Your task to perform on an android device: change the clock display to analog Image 0: 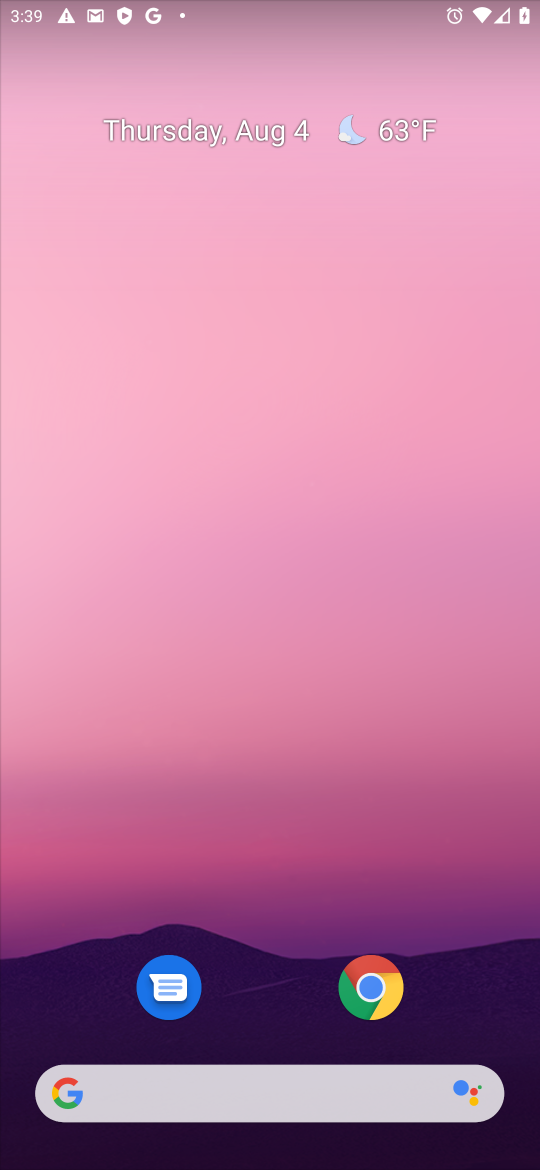
Step 0: click (174, 216)
Your task to perform on an android device: change the clock display to analog Image 1: 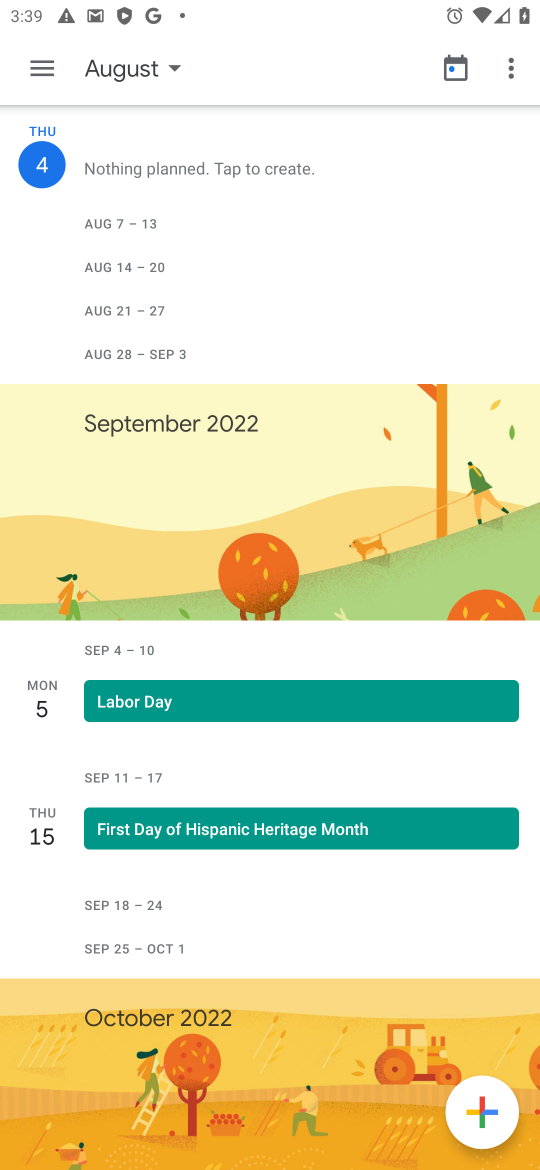
Step 1: press home button
Your task to perform on an android device: change the clock display to analog Image 2: 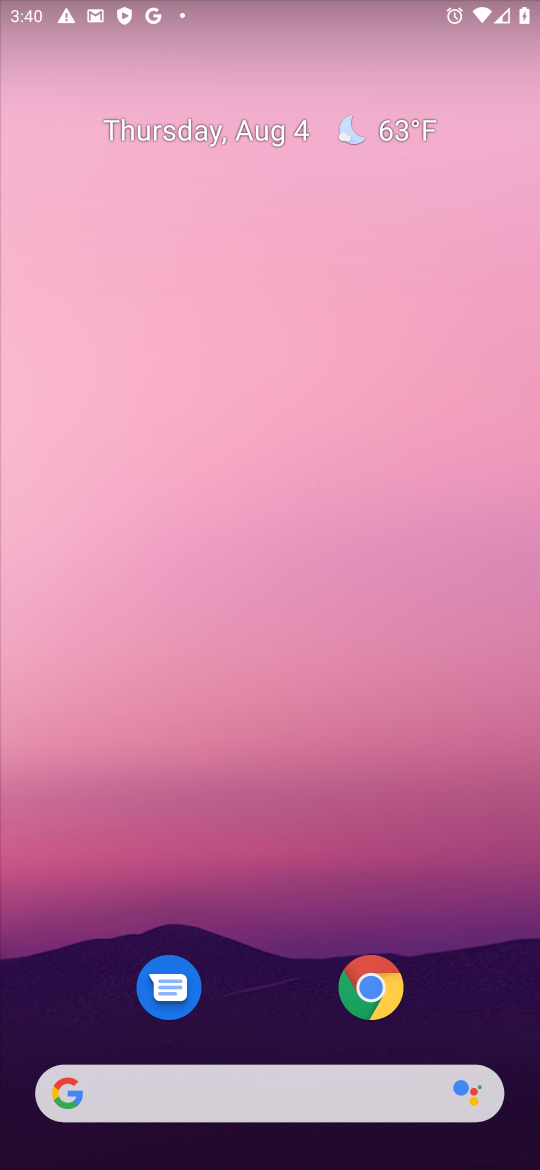
Step 2: drag from (214, 223) to (209, 17)
Your task to perform on an android device: change the clock display to analog Image 3: 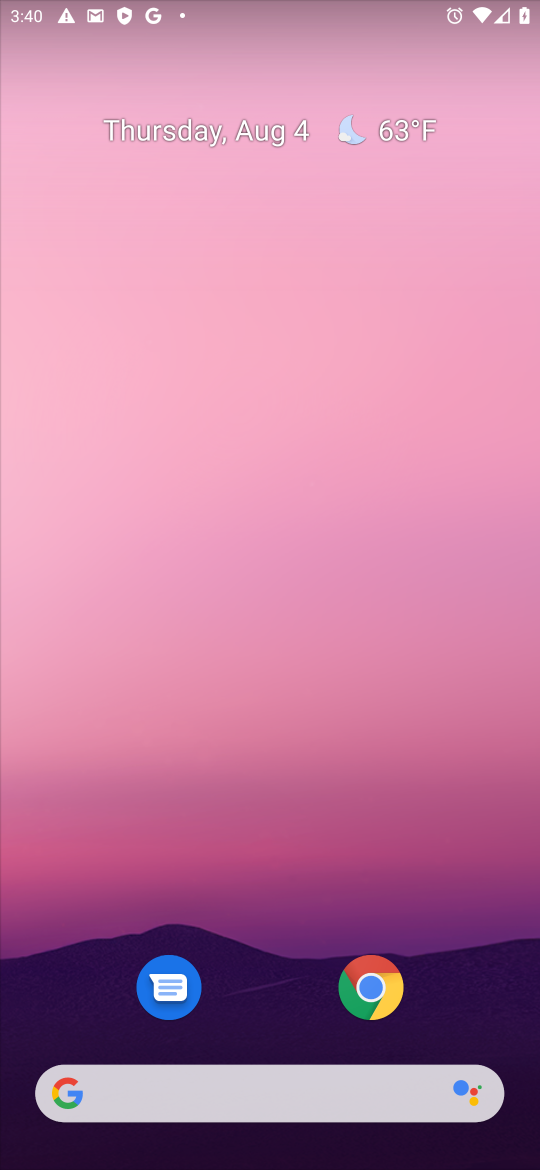
Step 3: drag from (255, 980) to (216, 220)
Your task to perform on an android device: change the clock display to analog Image 4: 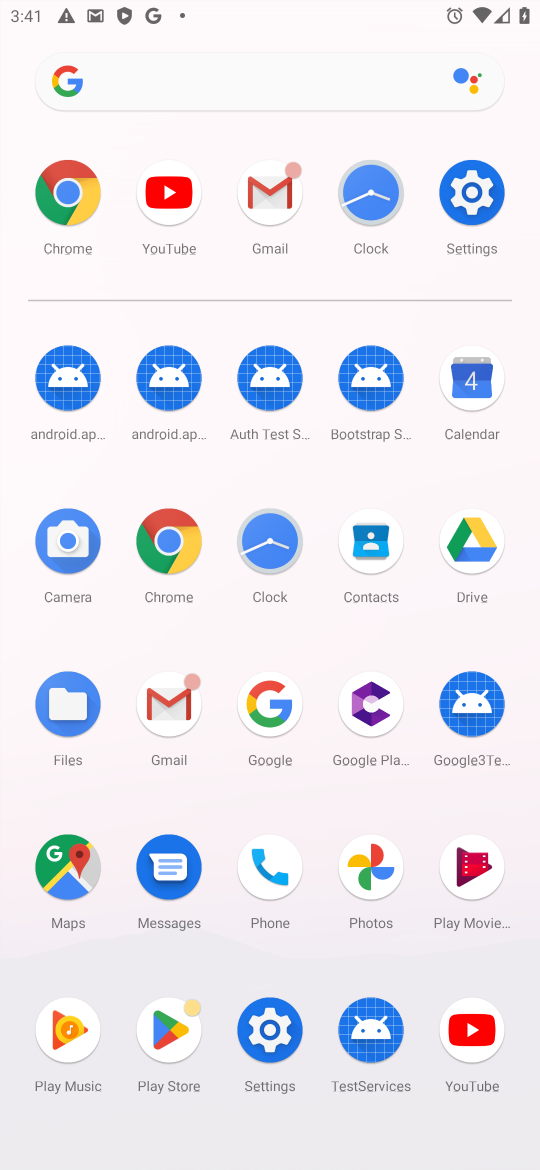
Step 4: click (346, 202)
Your task to perform on an android device: change the clock display to analog Image 5: 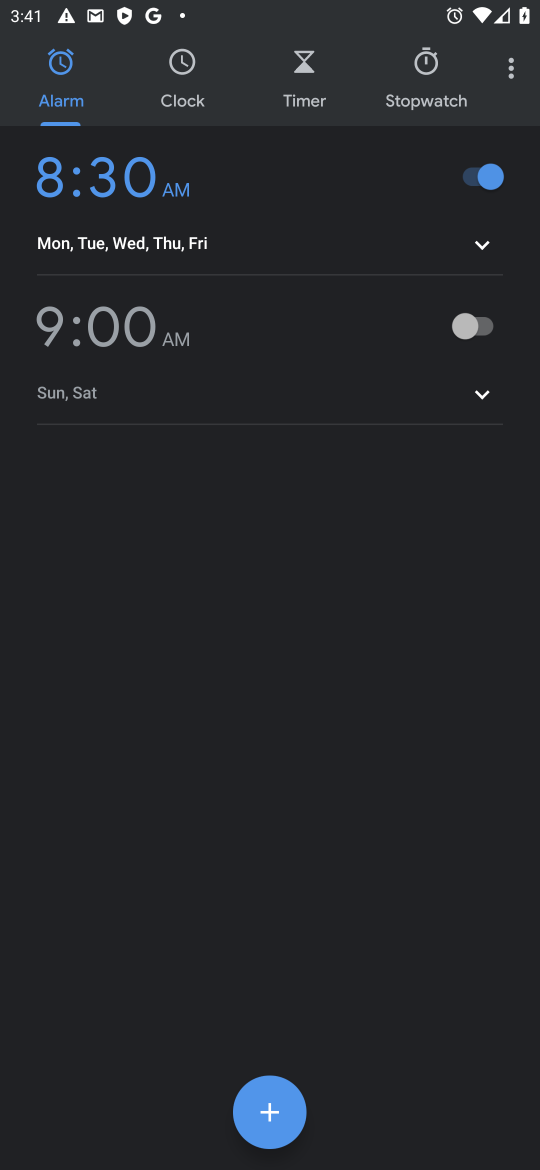
Step 5: click (505, 67)
Your task to perform on an android device: change the clock display to analog Image 6: 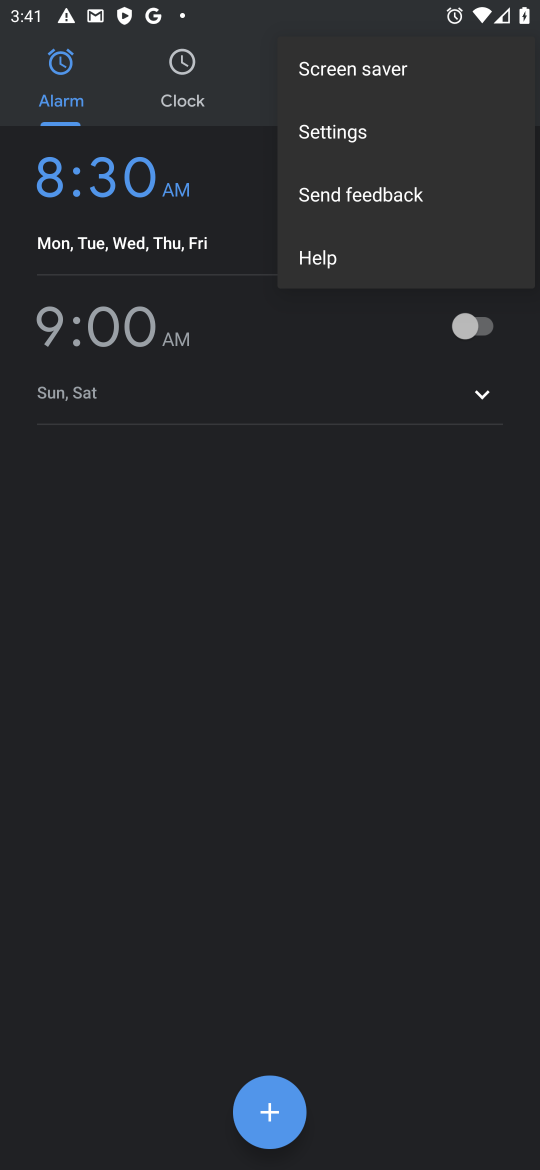
Step 6: click (353, 138)
Your task to perform on an android device: change the clock display to analog Image 7: 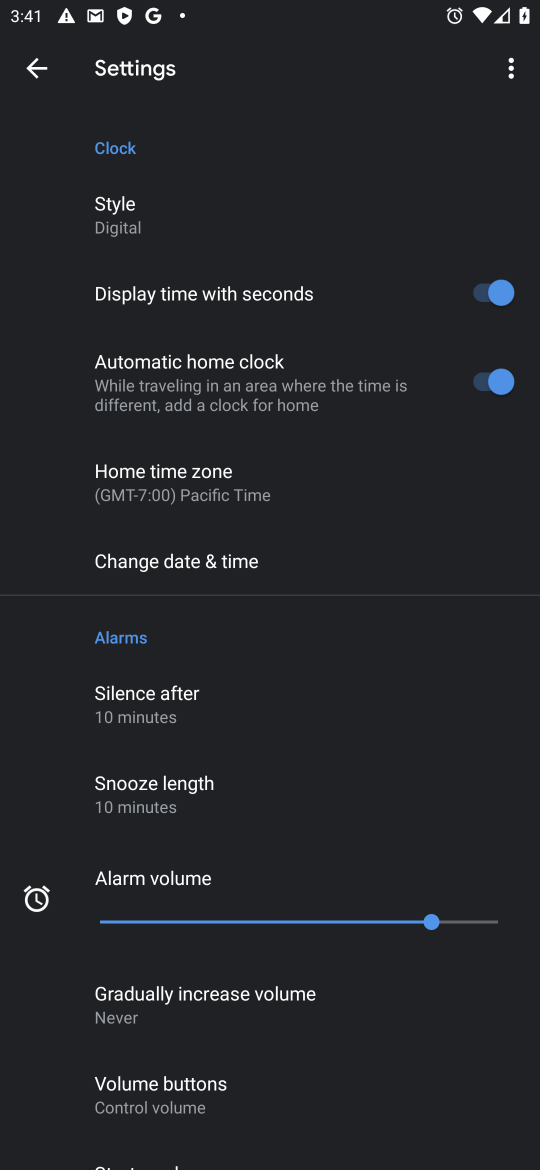
Step 7: click (128, 245)
Your task to perform on an android device: change the clock display to analog Image 8: 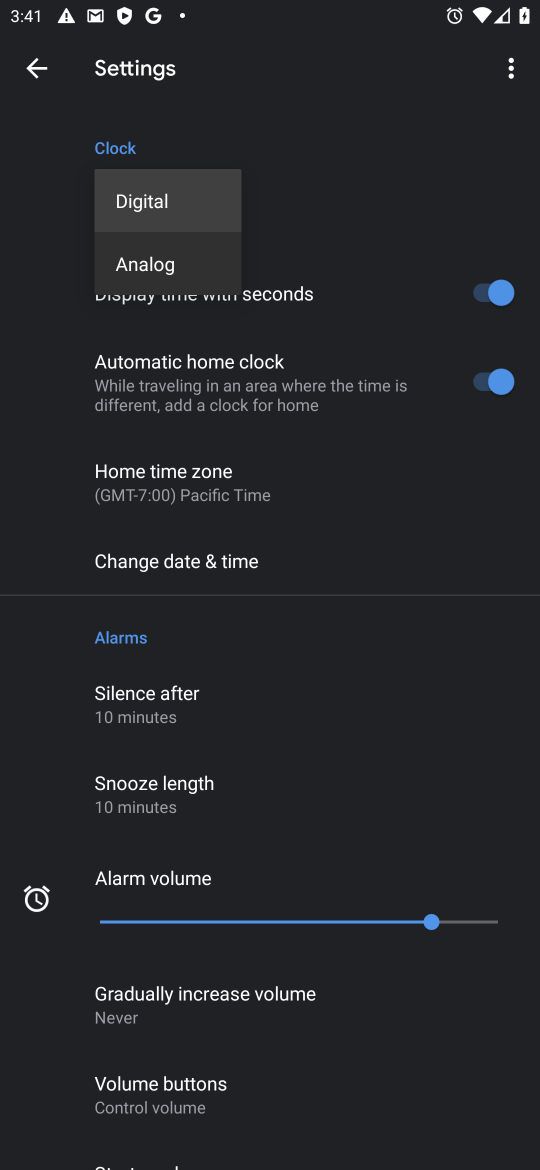
Step 8: click (142, 282)
Your task to perform on an android device: change the clock display to analog Image 9: 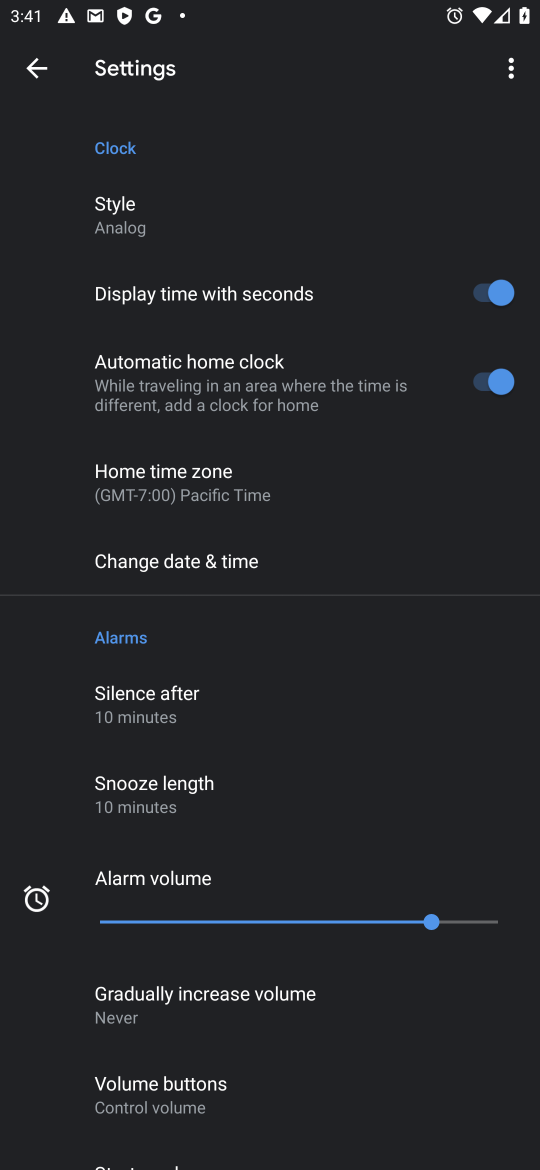
Step 9: task complete